Your task to perform on an android device: Search for Italian restaurants on Maps Image 0: 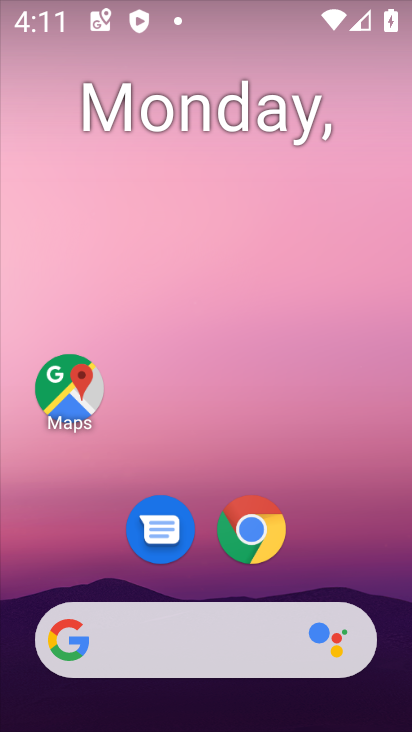
Step 0: drag from (250, 722) to (255, 247)
Your task to perform on an android device: Search for Italian restaurants on Maps Image 1: 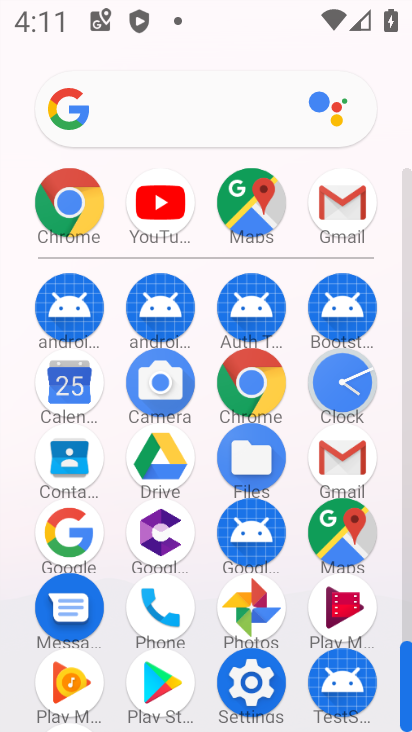
Step 1: click (338, 530)
Your task to perform on an android device: Search for Italian restaurants on Maps Image 2: 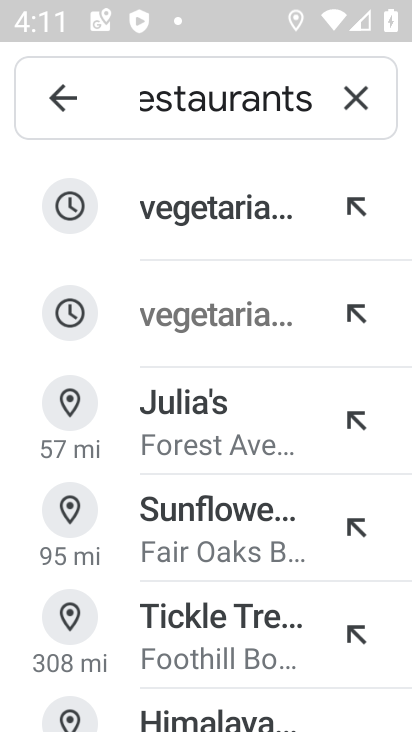
Step 2: click (356, 97)
Your task to perform on an android device: Search for Italian restaurants on Maps Image 3: 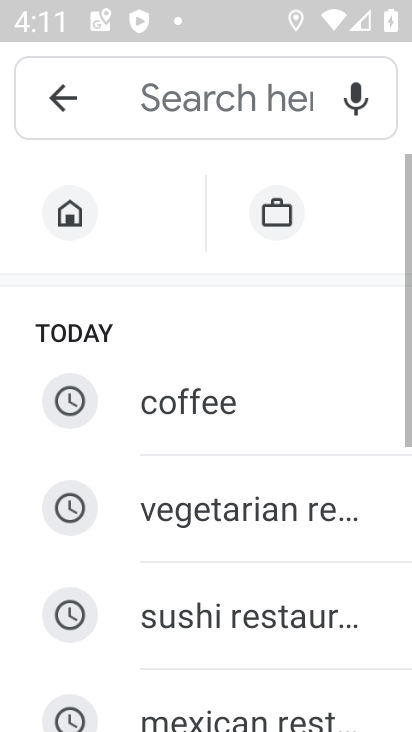
Step 3: click (218, 109)
Your task to perform on an android device: Search for Italian restaurants on Maps Image 4: 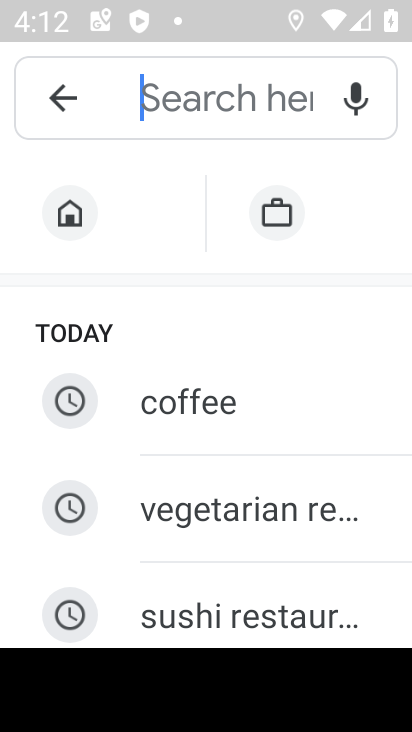
Step 4: type "italian restaurants"
Your task to perform on an android device: Search for Italian restaurants on Maps Image 5: 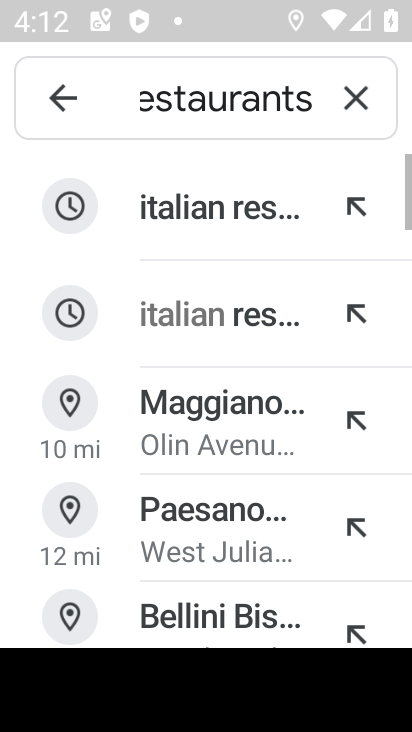
Step 5: click (196, 201)
Your task to perform on an android device: Search for Italian restaurants on Maps Image 6: 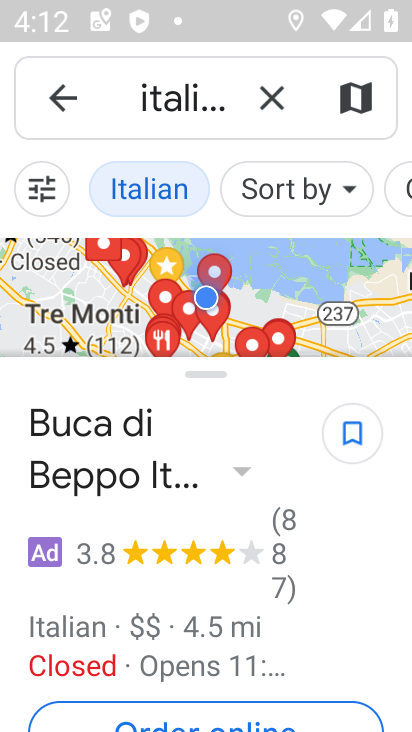
Step 6: task complete